Your task to perform on an android device: turn off airplane mode Image 0: 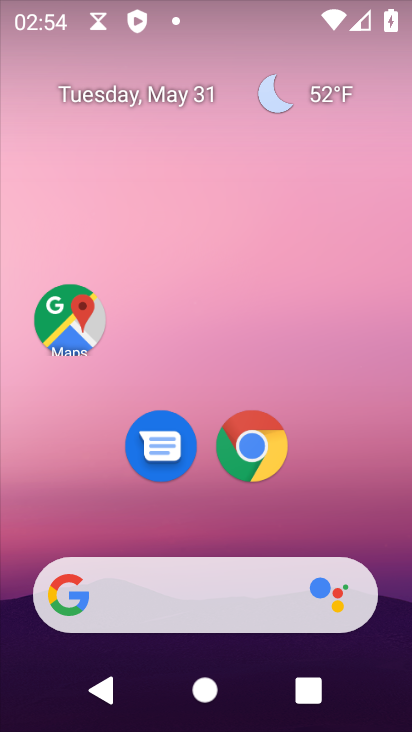
Step 0: drag from (349, 516) to (308, 149)
Your task to perform on an android device: turn off airplane mode Image 1: 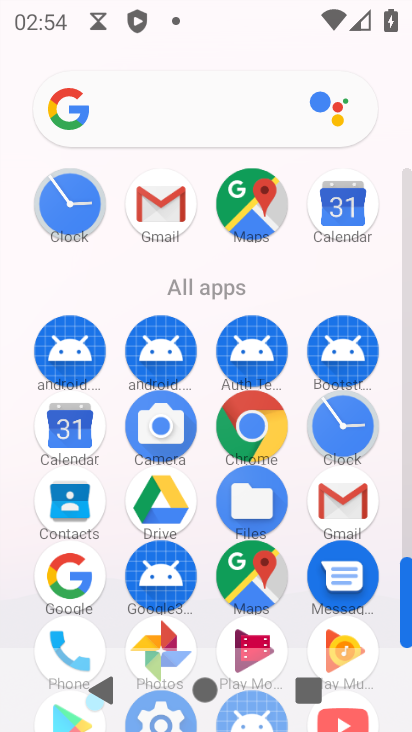
Step 1: drag from (114, 300) to (139, 86)
Your task to perform on an android device: turn off airplane mode Image 2: 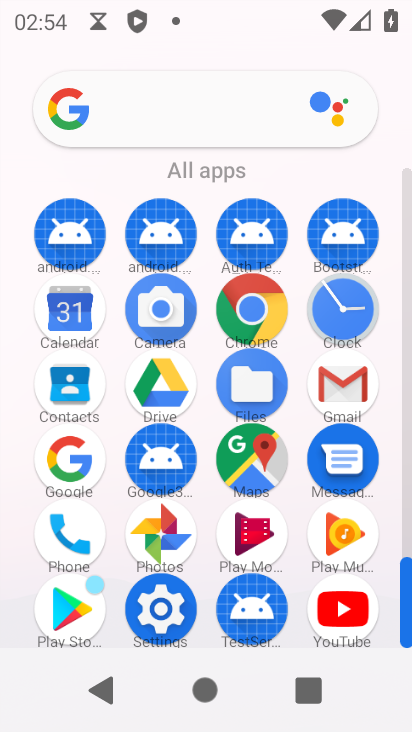
Step 2: click (162, 607)
Your task to perform on an android device: turn off airplane mode Image 3: 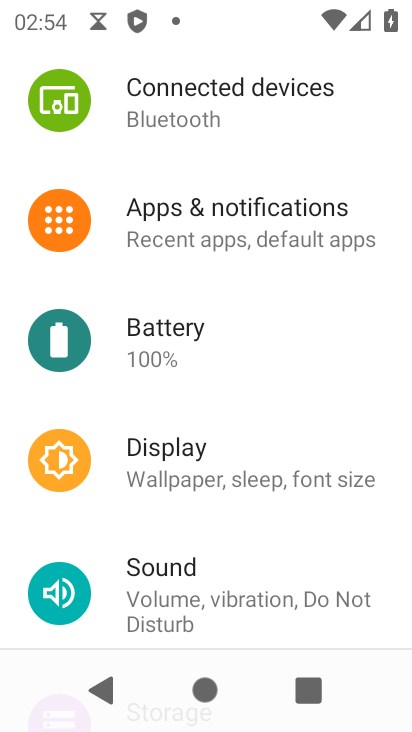
Step 3: drag from (260, 170) to (310, 294)
Your task to perform on an android device: turn off airplane mode Image 4: 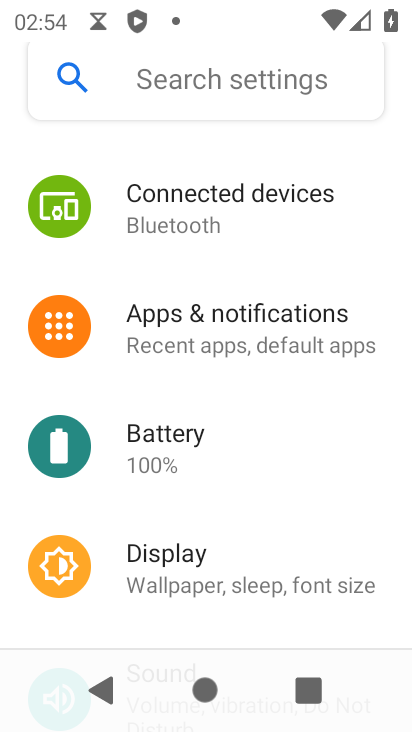
Step 4: drag from (245, 144) to (296, 272)
Your task to perform on an android device: turn off airplane mode Image 5: 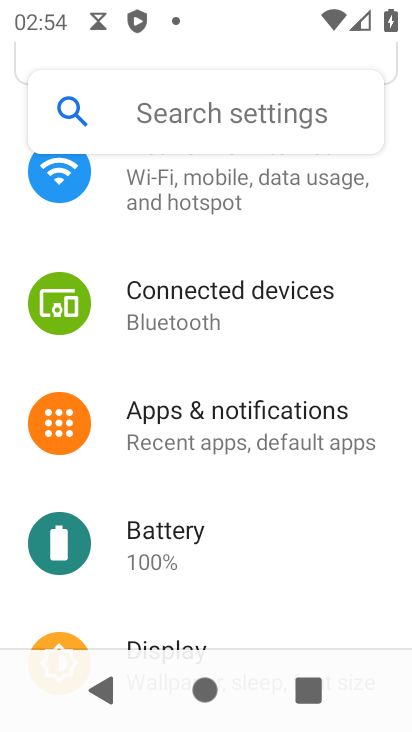
Step 5: drag from (273, 205) to (324, 294)
Your task to perform on an android device: turn off airplane mode Image 6: 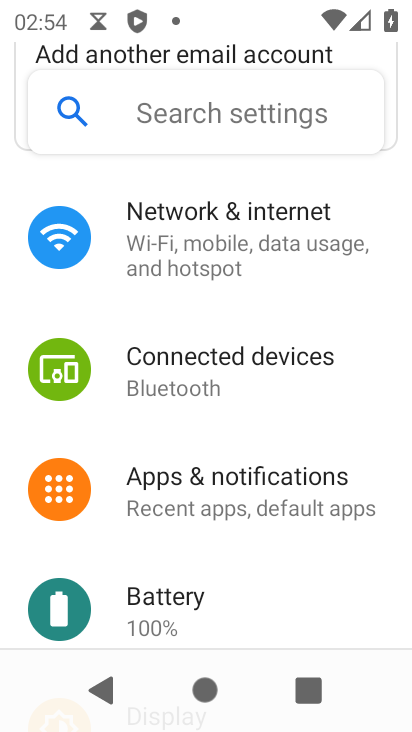
Step 6: click (279, 238)
Your task to perform on an android device: turn off airplane mode Image 7: 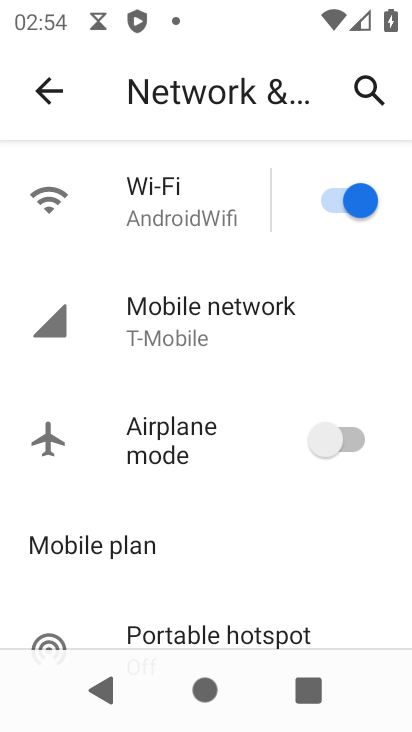
Step 7: task complete